Your task to perform on an android device: Open Reddit.com Image 0: 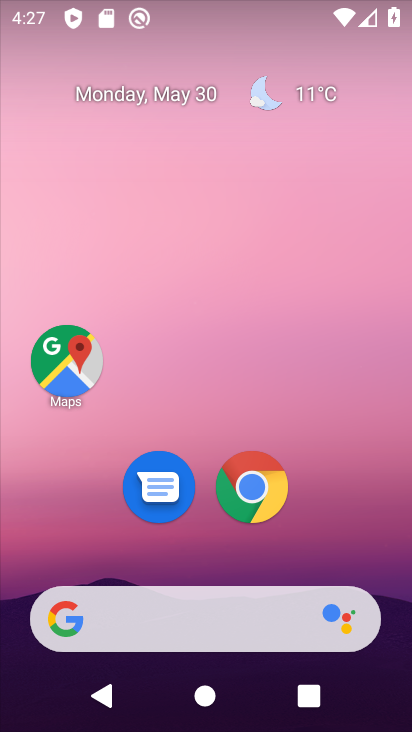
Step 0: click (254, 484)
Your task to perform on an android device: Open Reddit.com Image 1: 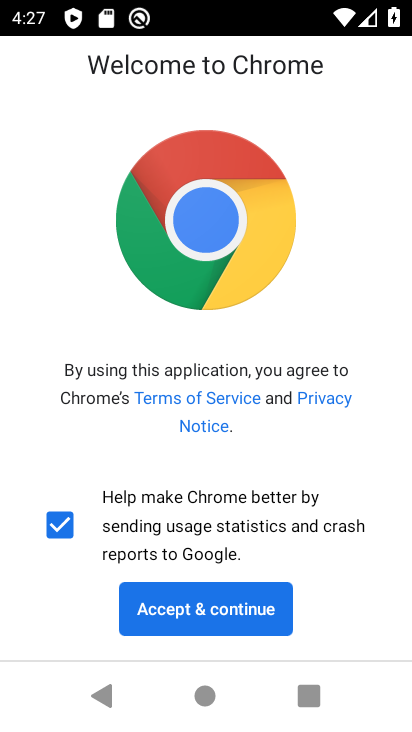
Step 1: click (184, 606)
Your task to perform on an android device: Open Reddit.com Image 2: 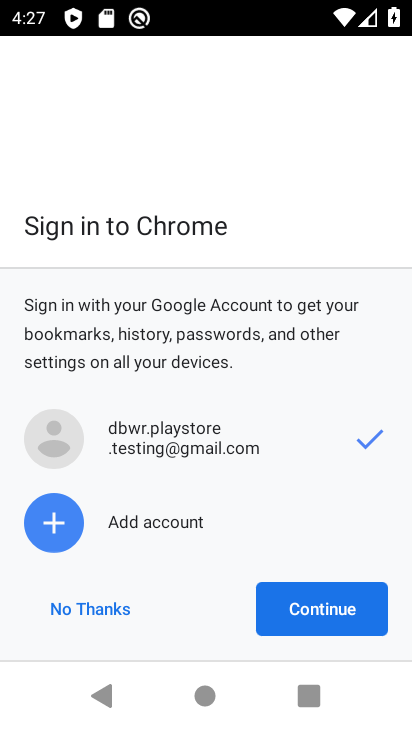
Step 2: click (341, 613)
Your task to perform on an android device: Open Reddit.com Image 3: 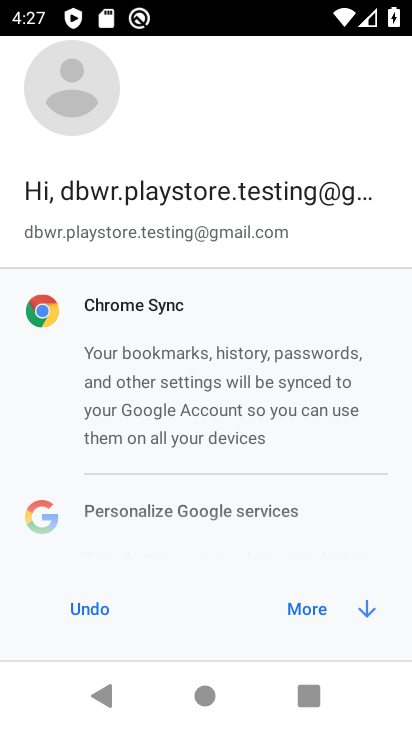
Step 3: click (341, 613)
Your task to perform on an android device: Open Reddit.com Image 4: 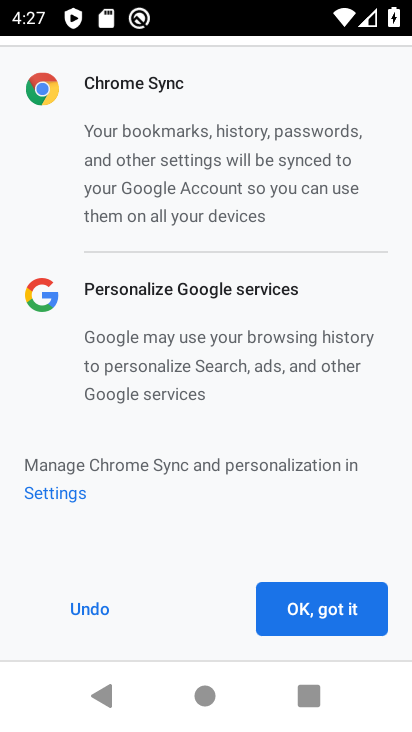
Step 4: click (326, 610)
Your task to perform on an android device: Open Reddit.com Image 5: 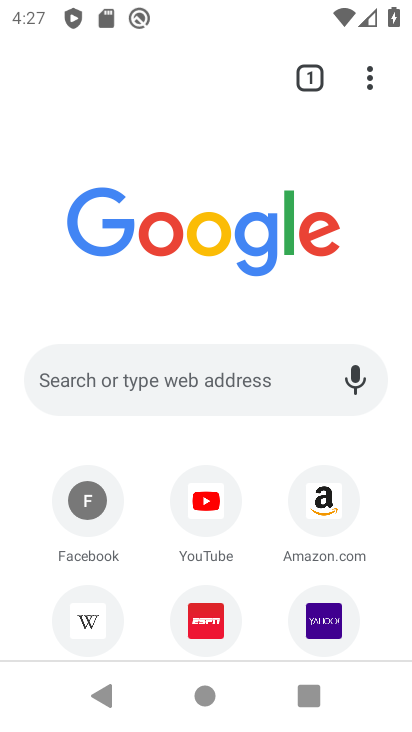
Step 5: click (184, 349)
Your task to perform on an android device: Open Reddit.com Image 6: 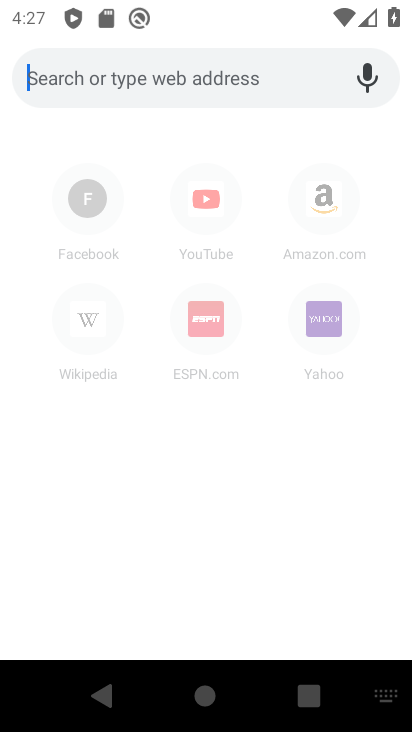
Step 6: type "reddit.com"
Your task to perform on an android device: Open Reddit.com Image 7: 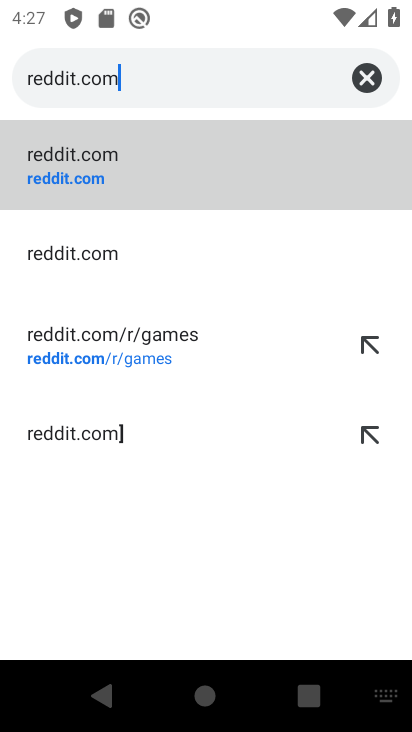
Step 7: click (74, 149)
Your task to perform on an android device: Open Reddit.com Image 8: 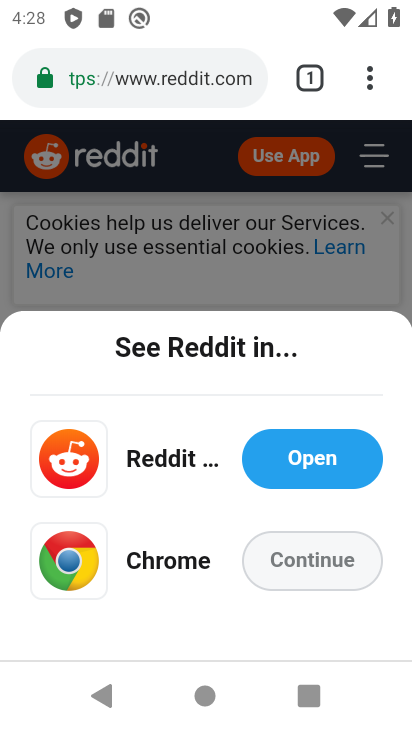
Step 8: task complete